Your task to perform on an android device: Search for a new eyeshadow Image 0: 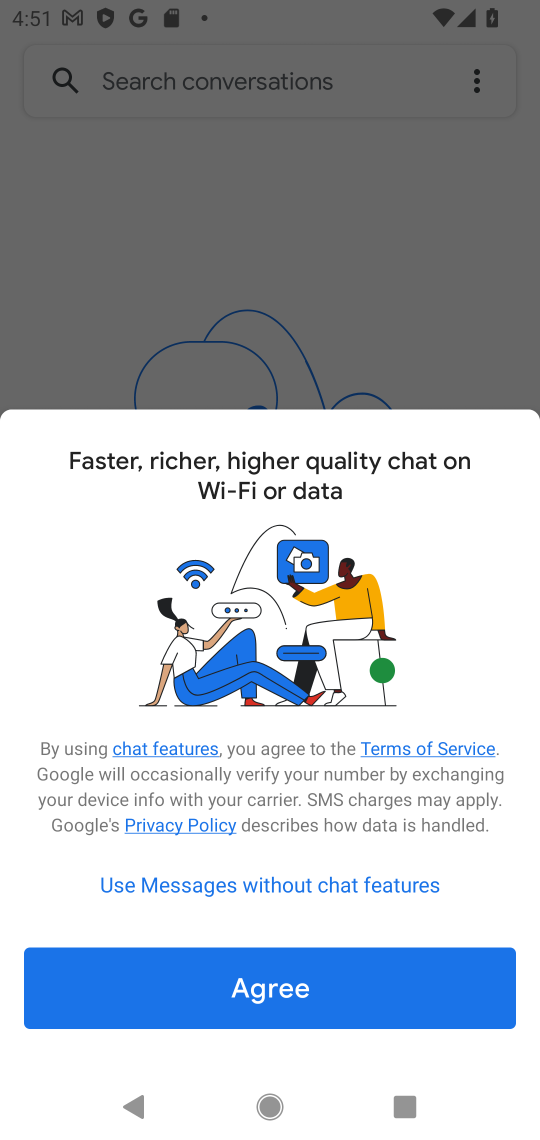
Step 0: press home button
Your task to perform on an android device: Search for a new eyeshadow Image 1: 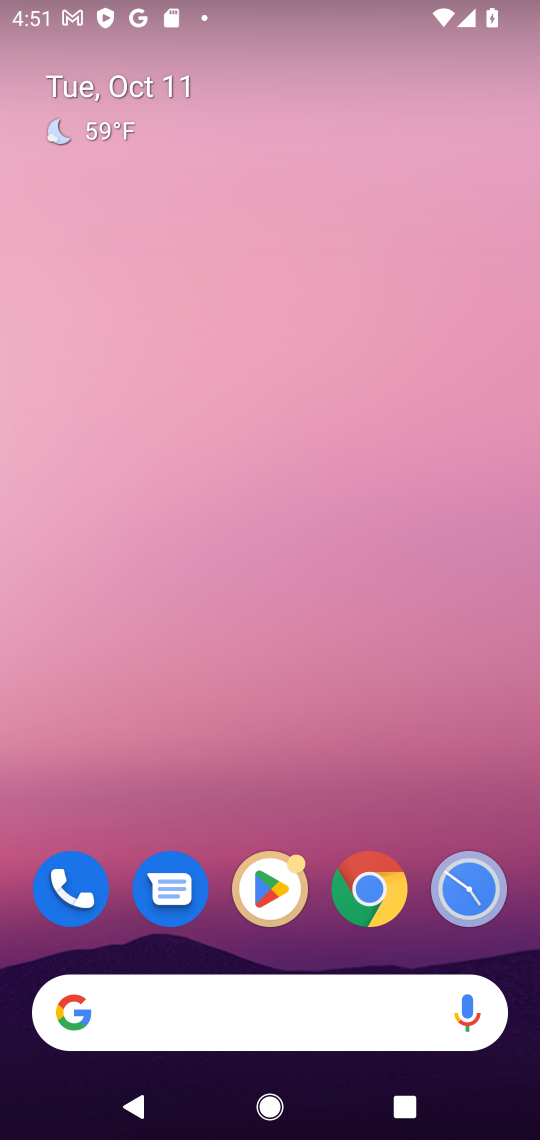
Step 1: drag from (266, 898) to (277, 266)
Your task to perform on an android device: Search for a new eyeshadow Image 2: 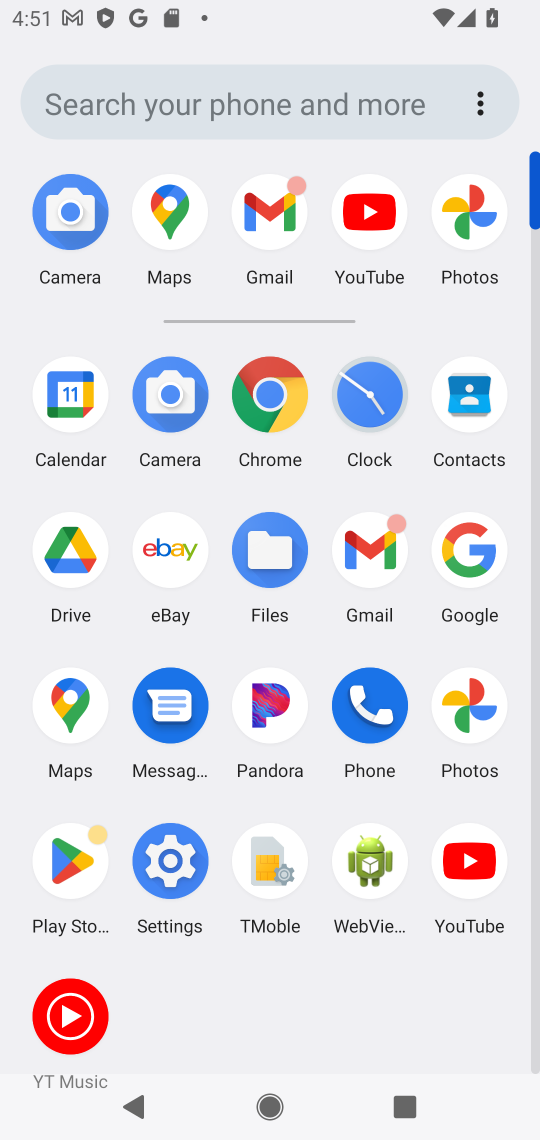
Step 2: click (465, 550)
Your task to perform on an android device: Search for a new eyeshadow Image 3: 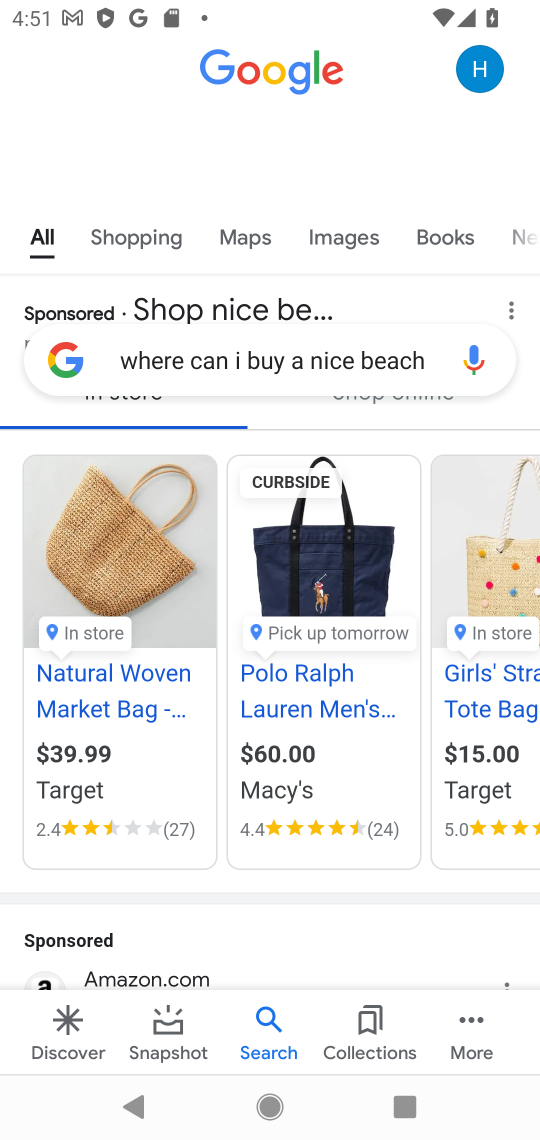
Step 3: click (327, 348)
Your task to perform on an android device: Search for a new eyeshadow Image 4: 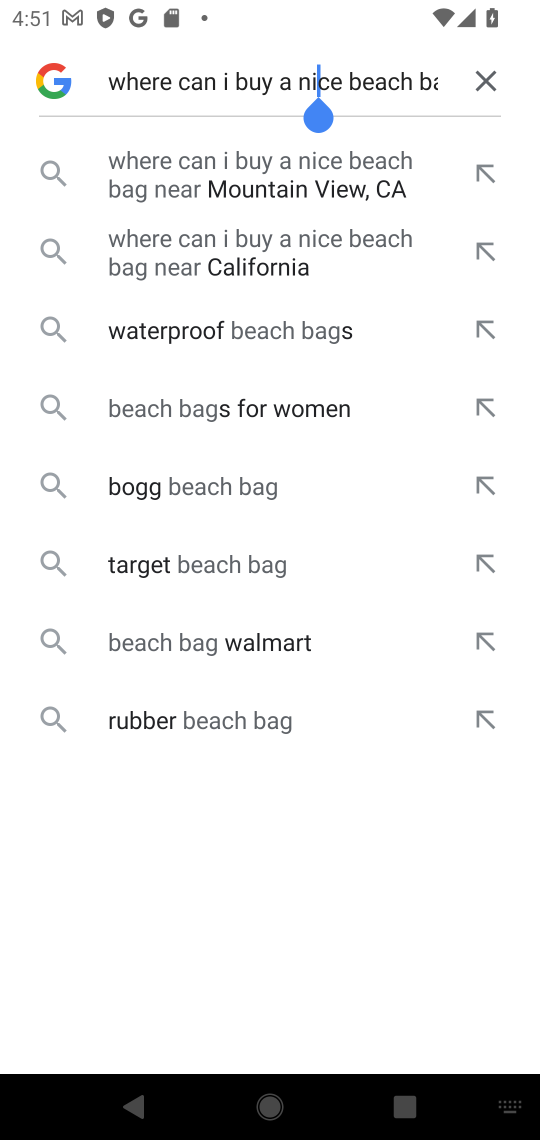
Step 4: click (503, 79)
Your task to perform on an android device: Search for a new eyeshadow Image 5: 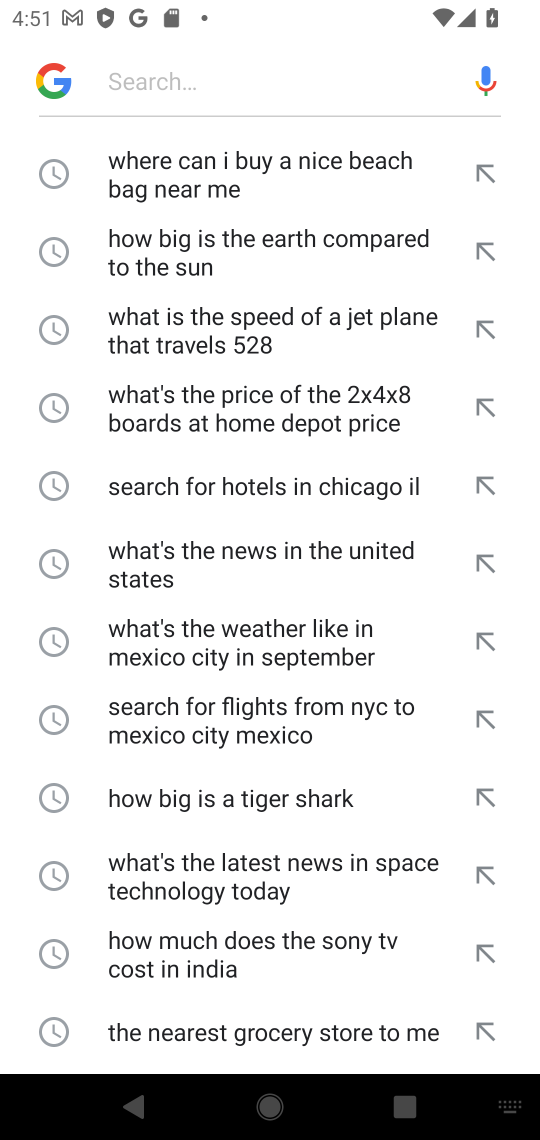
Step 5: click (483, 85)
Your task to perform on an android device: Search for a new eyeshadow Image 6: 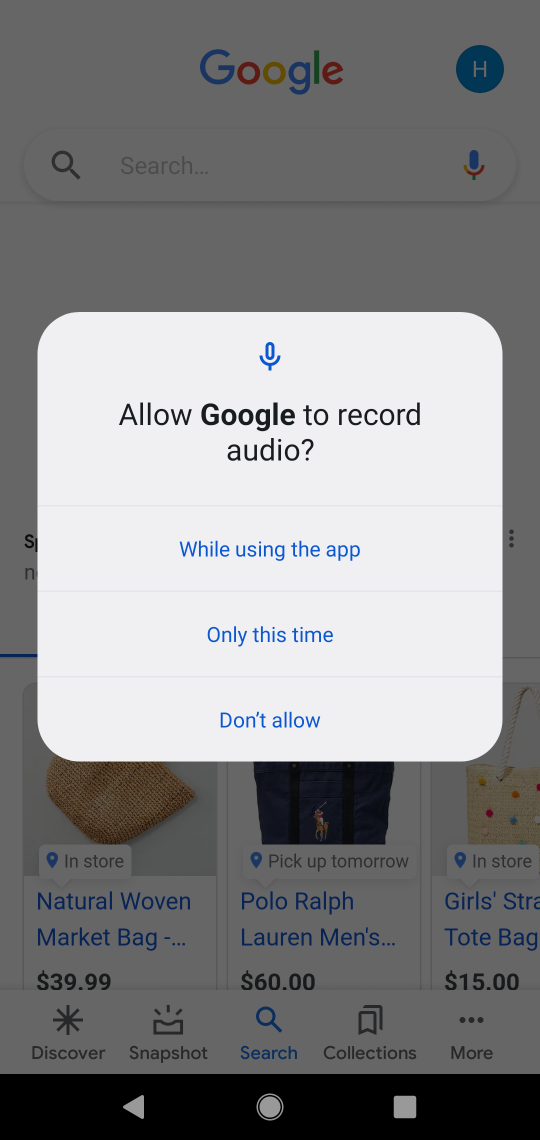
Step 6: press back button
Your task to perform on an android device: Search for a new eyeshadow Image 7: 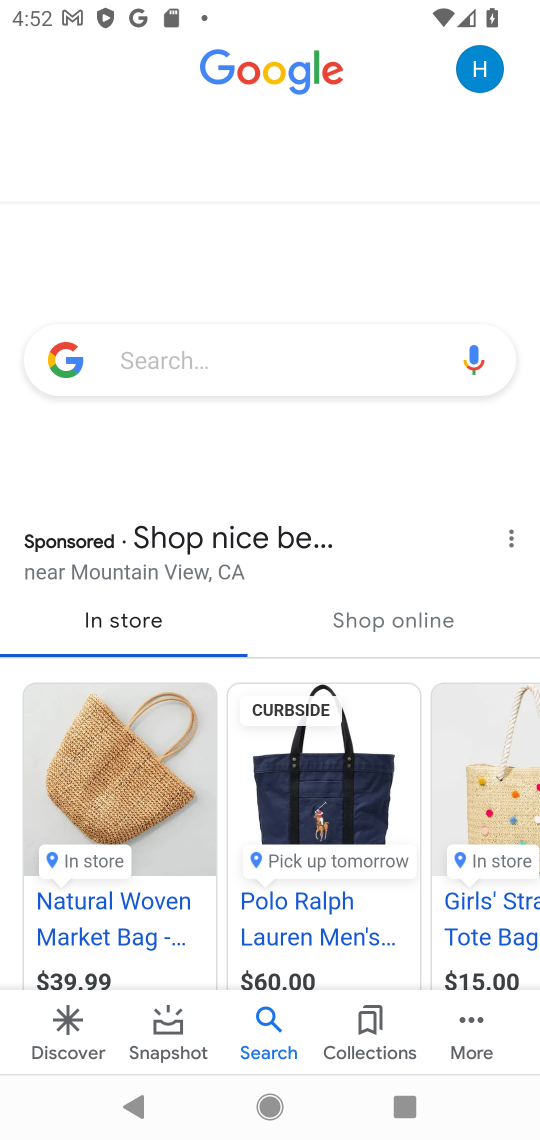
Step 7: click (353, 376)
Your task to perform on an android device: Search for a new eyeshadow Image 8: 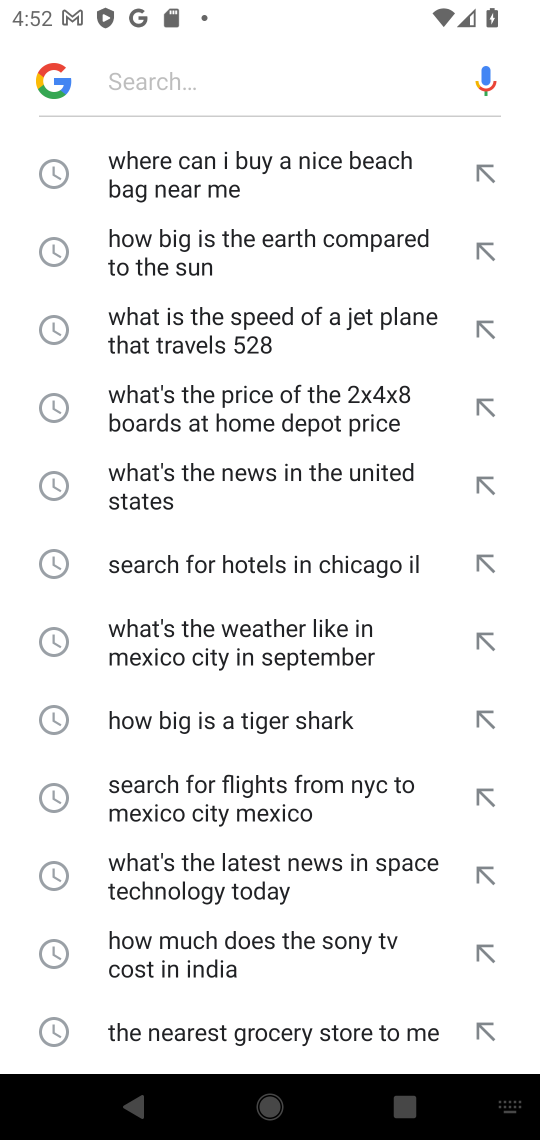
Step 8: click (324, 91)
Your task to perform on an android device: Search for a new eyeshadow Image 9: 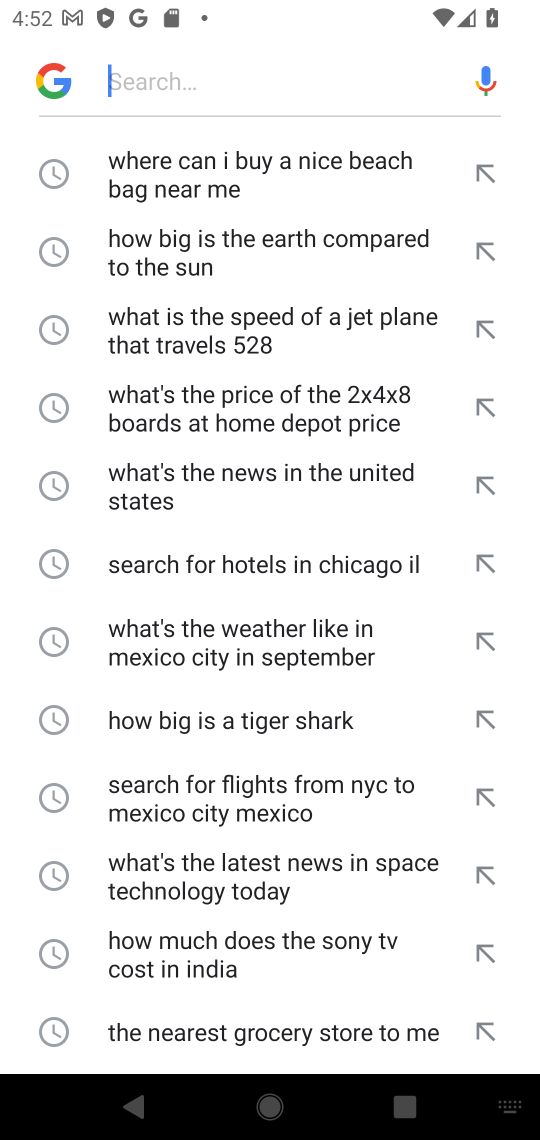
Step 9: type "Search for a new eyeshadow "
Your task to perform on an android device: Search for a new eyeshadow Image 10: 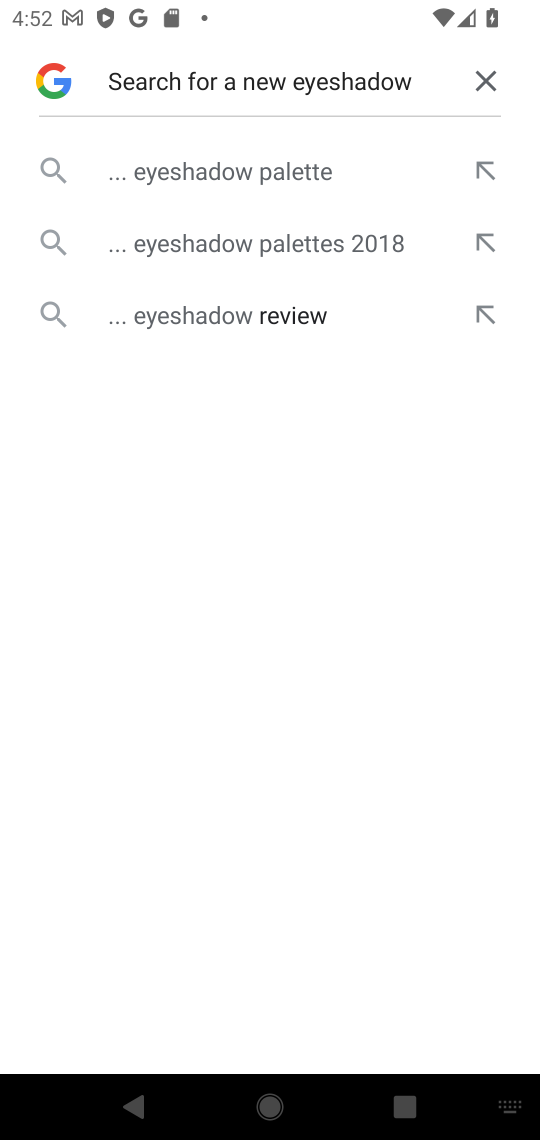
Step 10: click (206, 176)
Your task to perform on an android device: Search for a new eyeshadow Image 11: 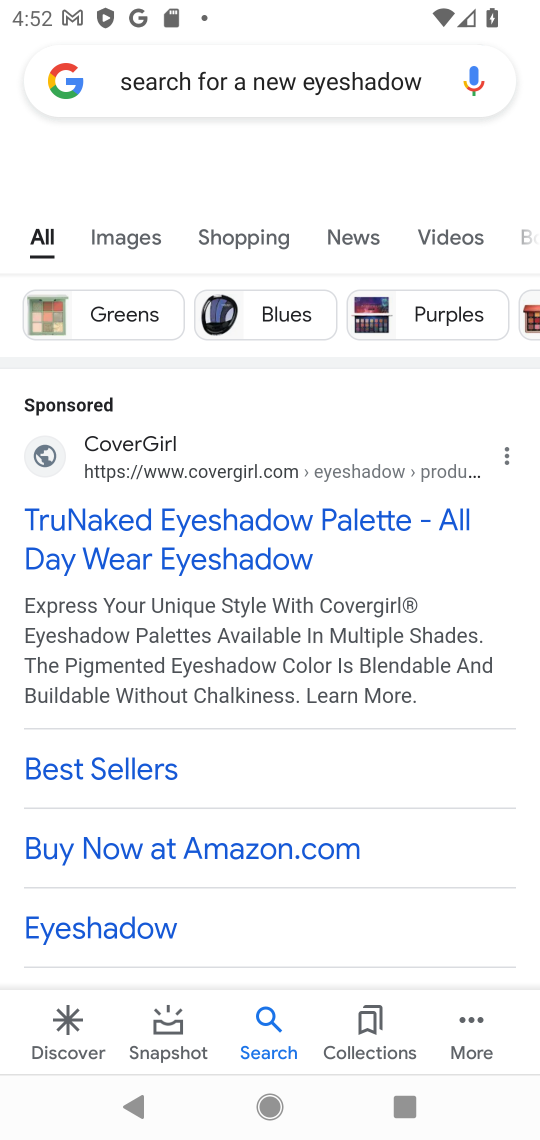
Step 11: click (225, 524)
Your task to perform on an android device: Search for a new eyeshadow Image 12: 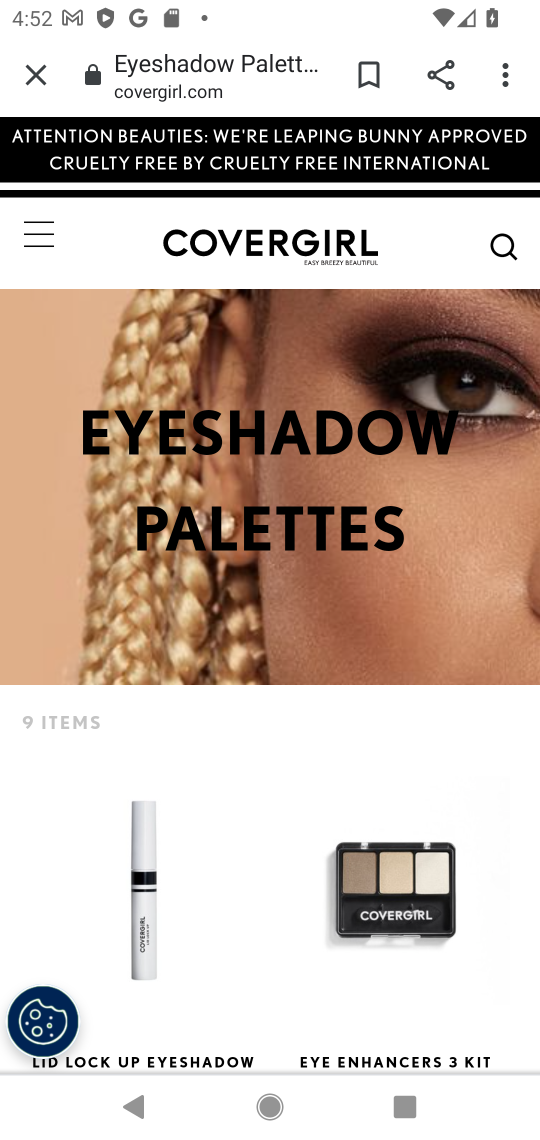
Step 12: task complete